Your task to perform on an android device: Search for vegetarian restaurants on Maps Image 0: 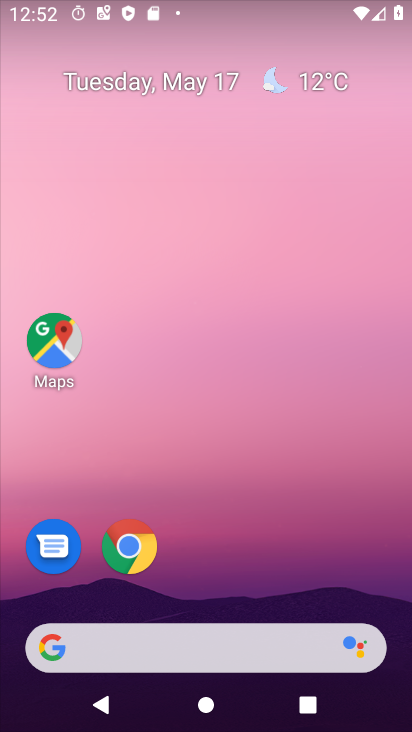
Step 0: click (49, 345)
Your task to perform on an android device: Search for vegetarian restaurants on Maps Image 1: 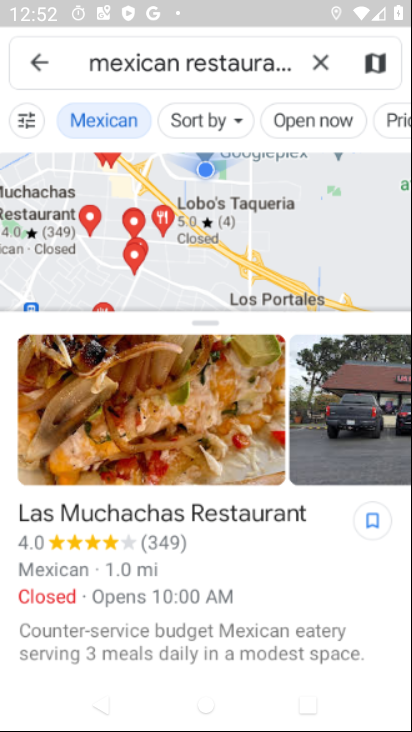
Step 1: click (317, 58)
Your task to perform on an android device: Search for vegetarian restaurants on Maps Image 2: 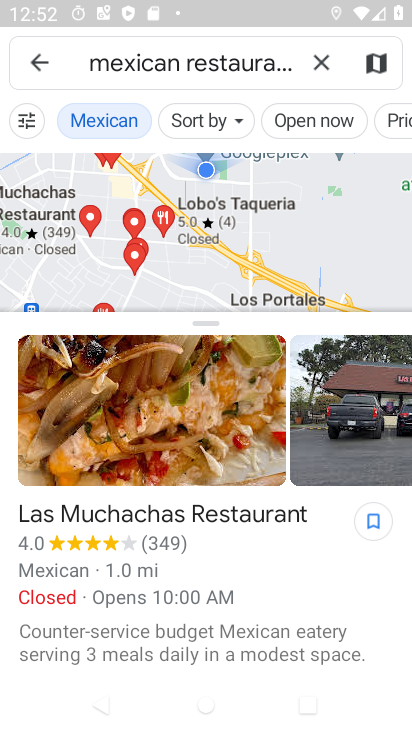
Step 2: click (320, 61)
Your task to perform on an android device: Search for vegetarian restaurants on Maps Image 3: 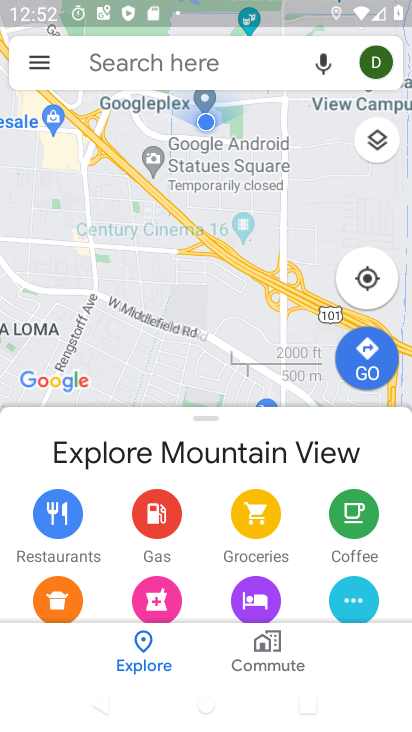
Step 3: click (197, 65)
Your task to perform on an android device: Search for vegetarian restaurants on Maps Image 4: 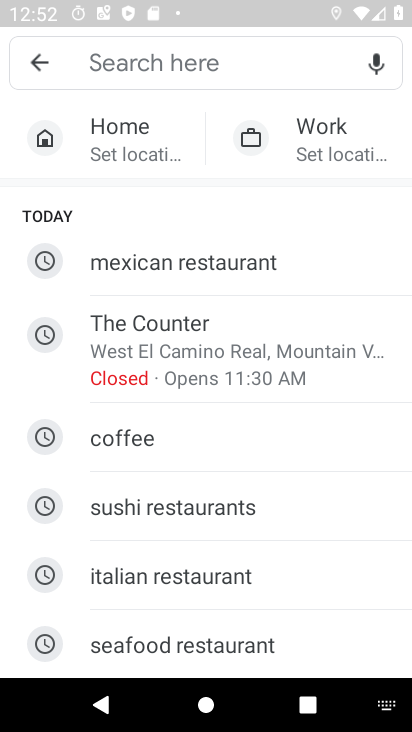
Step 4: drag from (247, 583) to (291, 475)
Your task to perform on an android device: Search for vegetarian restaurants on Maps Image 5: 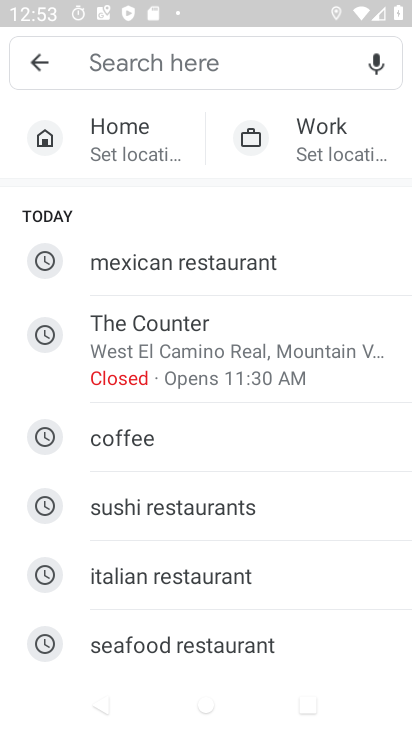
Step 5: click (126, 60)
Your task to perform on an android device: Search for vegetarian restaurants on Maps Image 6: 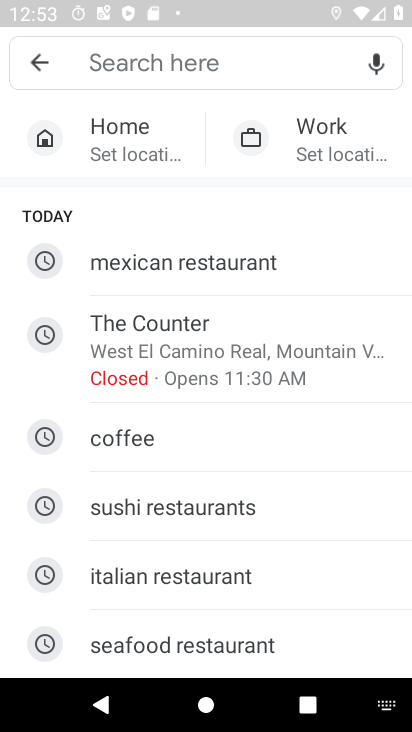
Step 6: type "vegetarian restaurant"
Your task to perform on an android device: Search for vegetarian restaurants on Maps Image 7: 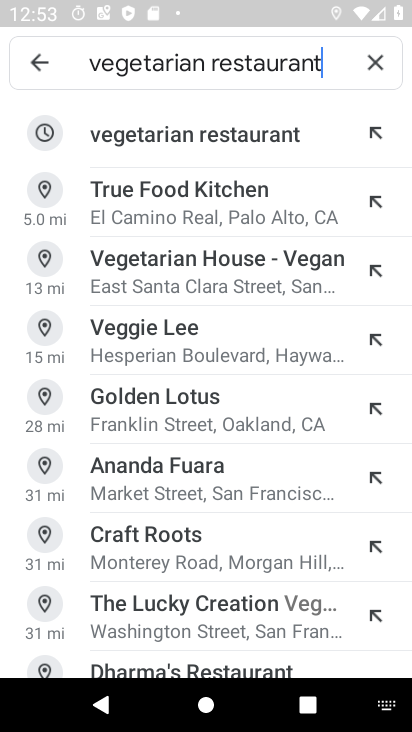
Step 7: click (273, 128)
Your task to perform on an android device: Search for vegetarian restaurants on Maps Image 8: 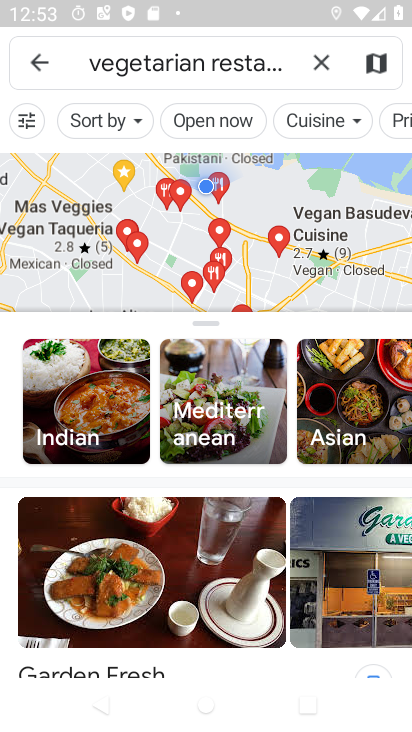
Step 8: task complete